Your task to perform on an android device: open wifi settings Image 0: 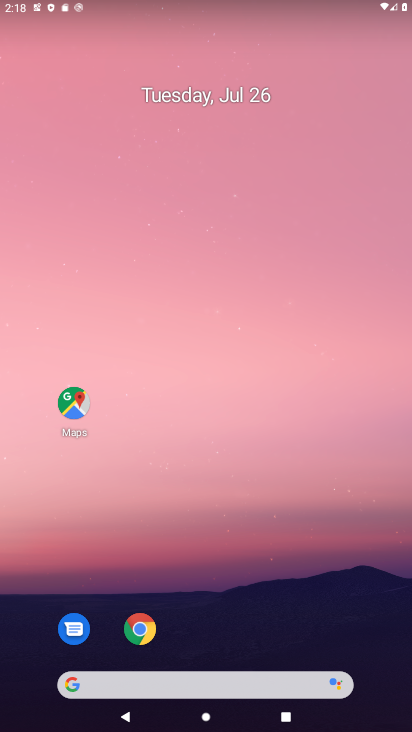
Step 0: drag from (219, 612) to (210, 226)
Your task to perform on an android device: open wifi settings Image 1: 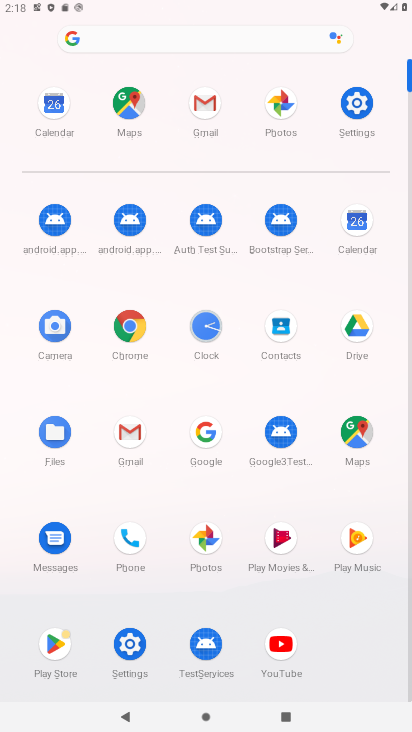
Step 1: click (363, 106)
Your task to perform on an android device: open wifi settings Image 2: 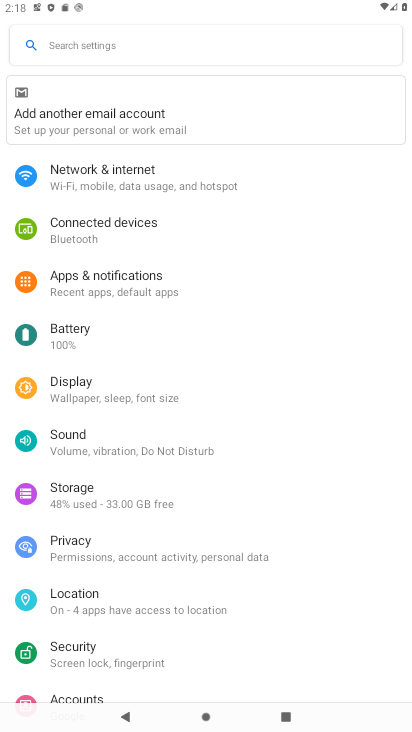
Step 2: click (107, 188)
Your task to perform on an android device: open wifi settings Image 3: 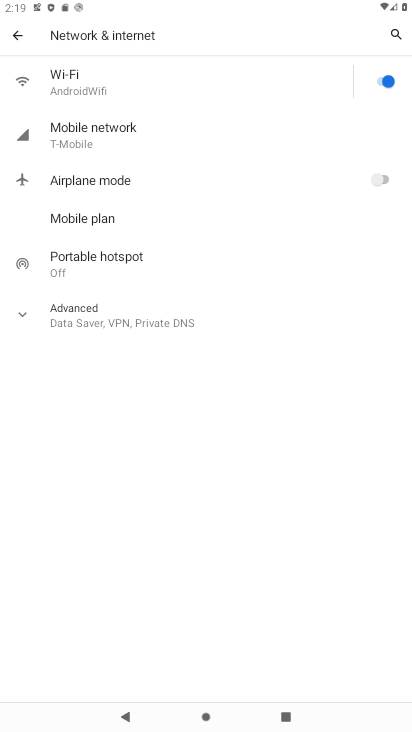
Step 3: click (99, 87)
Your task to perform on an android device: open wifi settings Image 4: 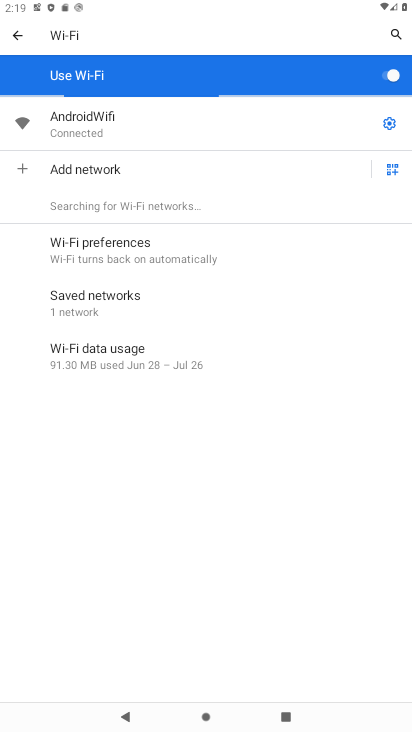
Step 4: task complete